Your task to perform on an android device: Open Google Chrome Image 0: 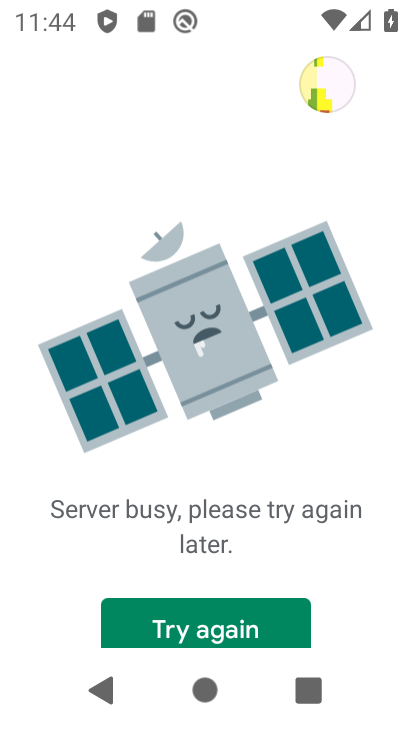
Step 0: press home button
Your task to perform on an android device: Open Google Chrome Image 1: 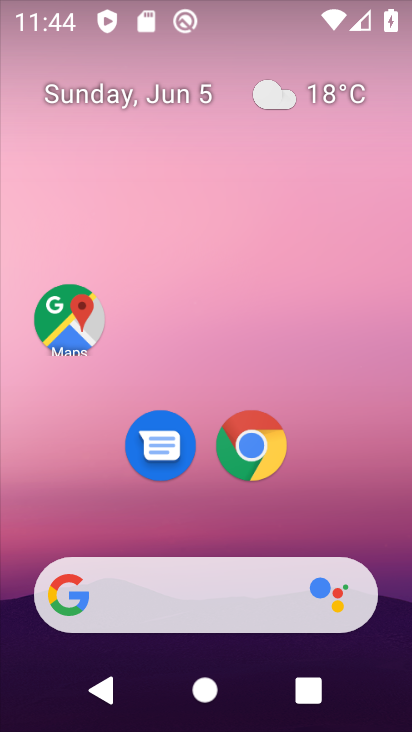
Step 1: drag from (350, 658) to (286, 130)
Your task to perform on an android device: Open Google Chrome Image 2: 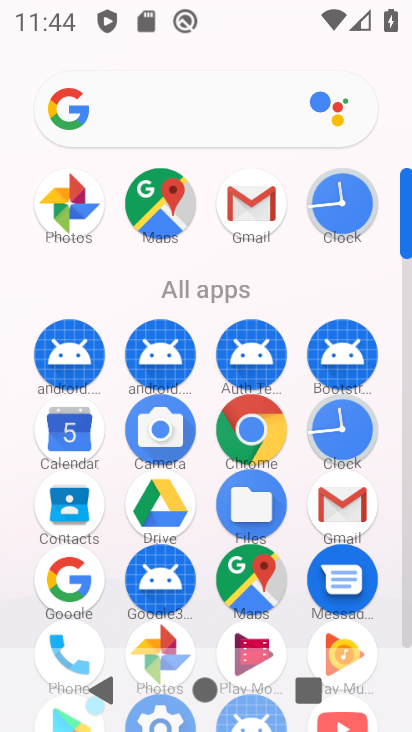
Step 2: click (276, 427)
Your task to perform on an android device: Open Google Chrome Image 3: 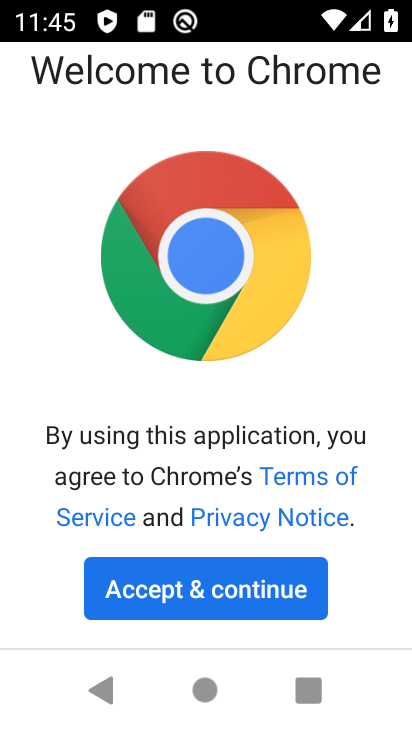
Step 3: click (237, 597)
Your task to perform on an android device: Open Google Chrome Image 4: 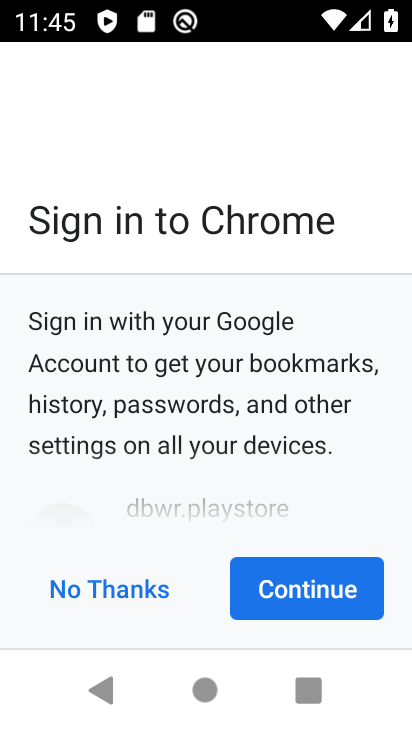
Step 4: click (158, 597)
Your task to perform on an android device: Open Google Chrome Image 5: 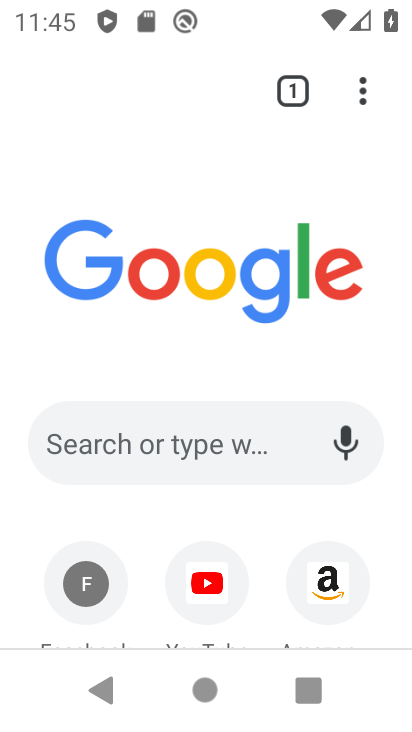
Step 5: task complete